Your task to perform on an android device: change text size in settings app Image 0: 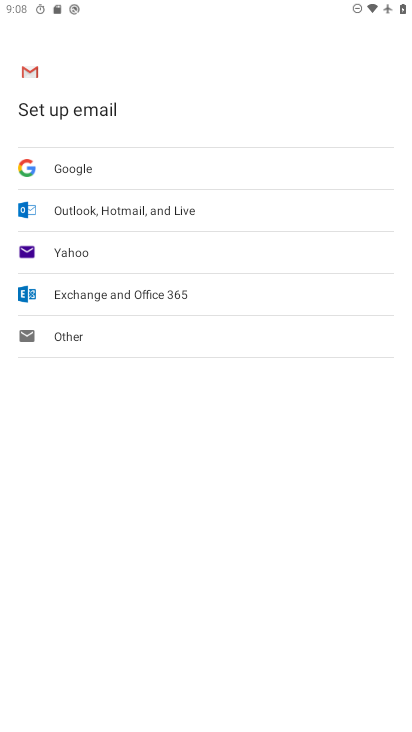
Step 0: press home button
Your task to perform on an android device: change text size in settings app Image 1: 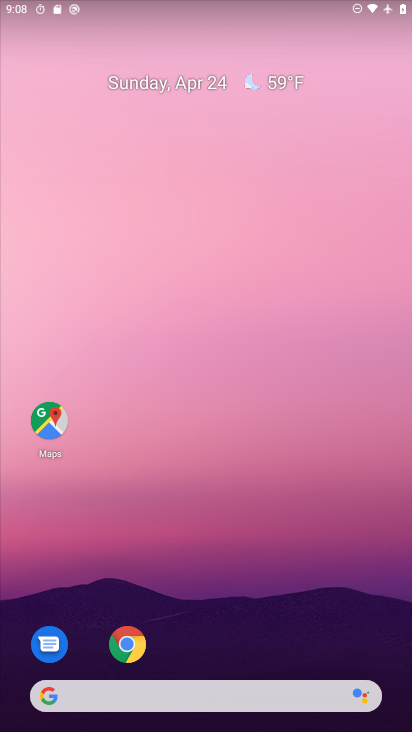
Step 1: drag from (222, 655) to (288, 131)
Your task to perform on an android device: change text size in settings app Image 2: 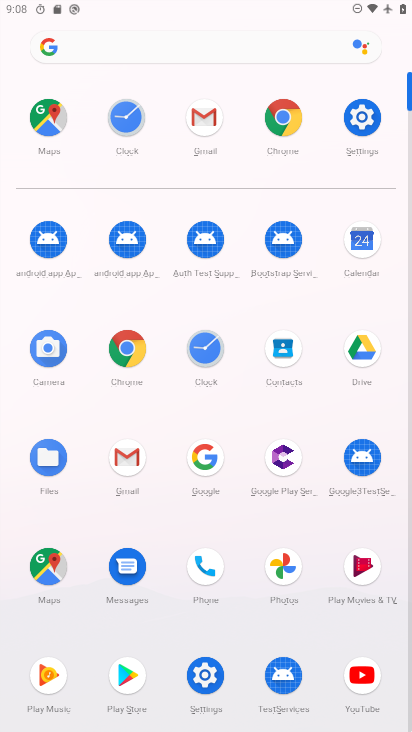
Step 2: click (361, 110)
Your task to perform on an android device: change text size in settings app Image 3: 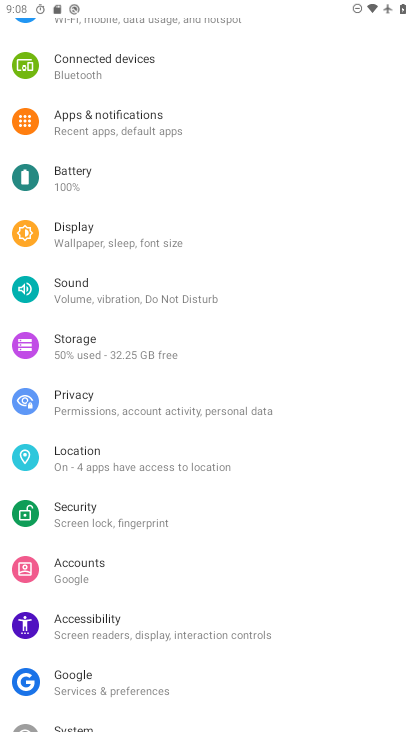
Step 3: click (104, 225)
Your task to perform on an android device: change text size in settings app Image 4: 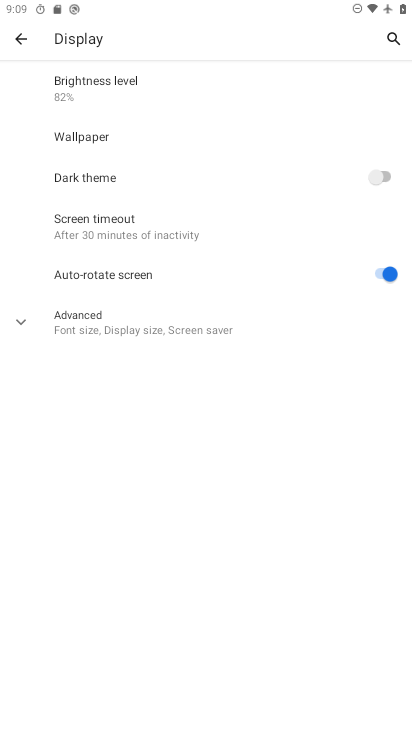
Step 4: click (25, 316)
Your task to perform on an android device: change text size in settings app Image 5: 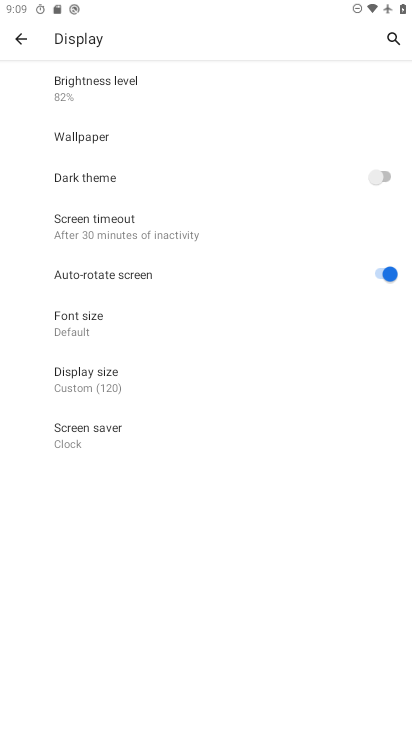
Step 5: click (68, 324)
Your task to perform on an android device: change text size in settings app Image 6: 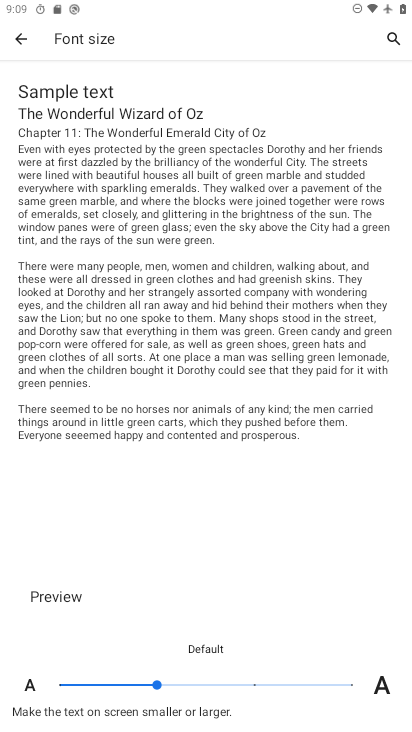
Step 6: click (59, 682)
Your task to perform on an android device: change text size in settings app Image 7: 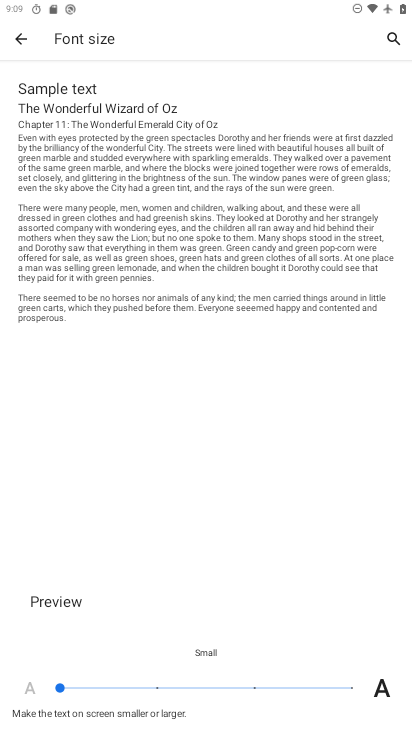
Step 7: task complete